Your task to perform on an android device: visit the assistant section in the google photos Image 0: 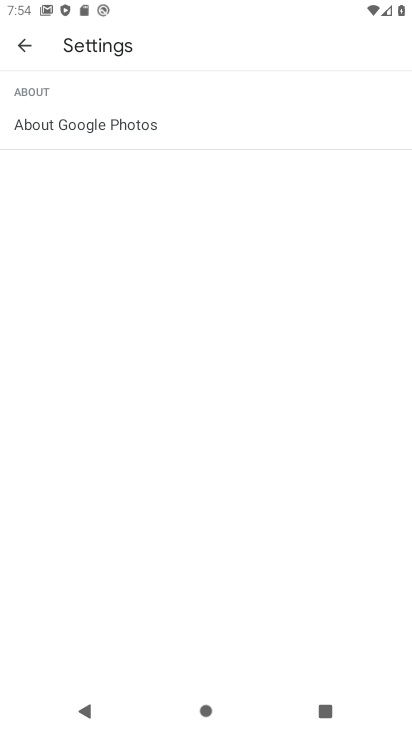
Step 0: click (34, 39)
Your task to perform on an android device: visit the assistant section in the google photos Image 1: 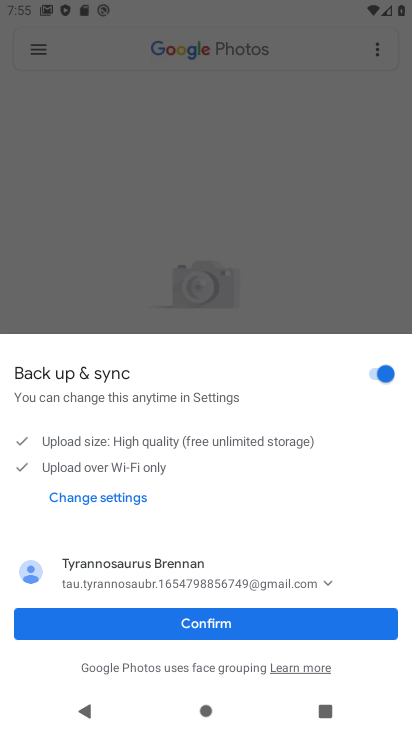
Step 1: click (244, 632)
Your task to perform on an android device: visit the assistant section in the google photos Image 2: 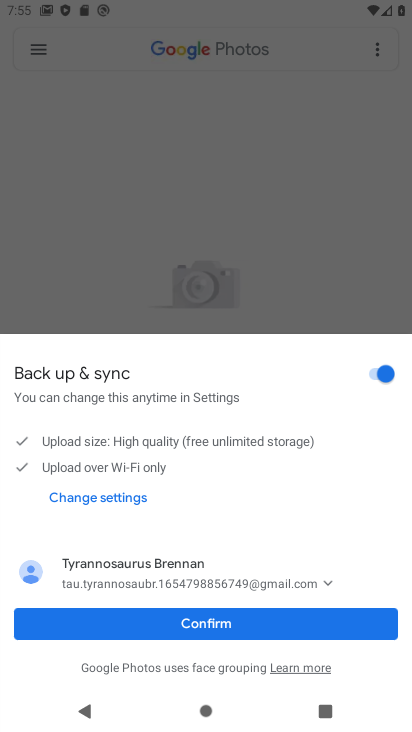
Step 2: click (243, 631)
Your task to perform on an android device: visit the assistant section in the google photos Image 3: 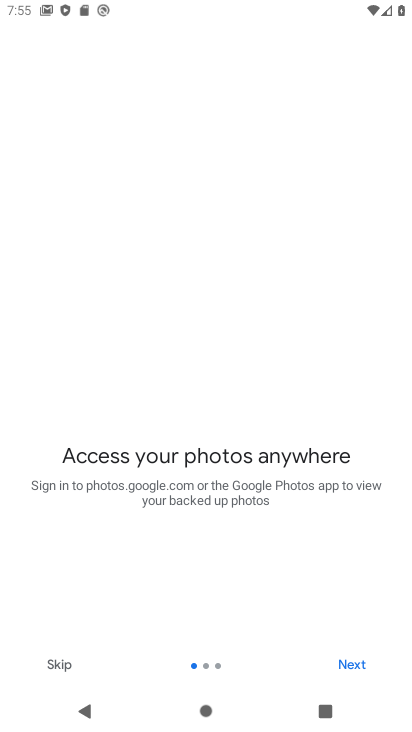
Step 3: click (342, 663)
Your task to perform on an android device: visit the assistant section in the google photos Image 4: 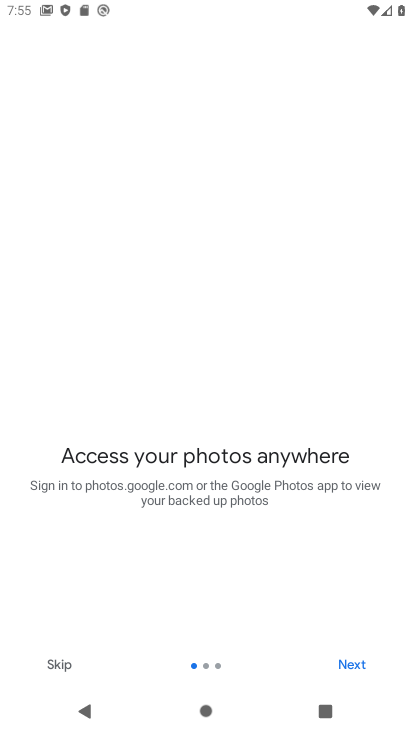
Step 4: click (342, 663)
Your task to perform on an android device: visit the assistant section in the google photos Image 5: 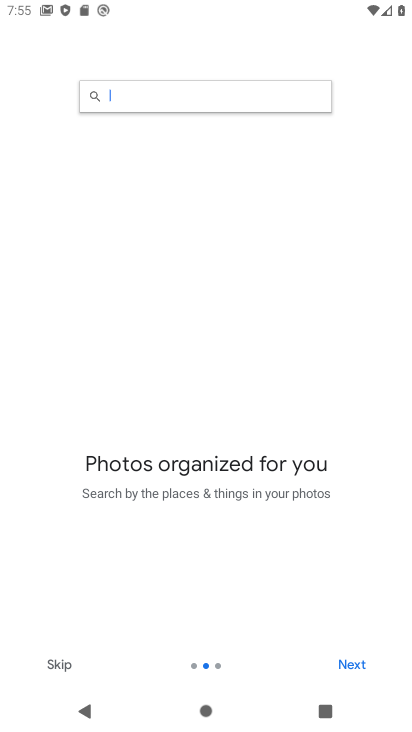
Step 5: click (342, 663)
Your task to perform on an android device: visit the assistant section in the google photos Image 6: 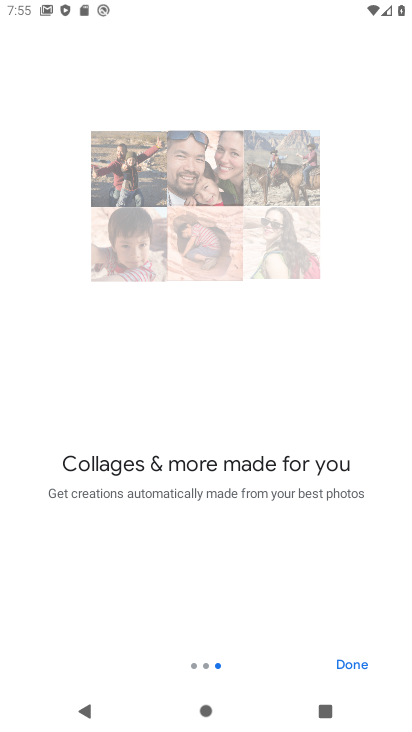
Step 6: click (342, 663)
Your task to perform on an android device: visit the assistant section in the google photos Image 7: 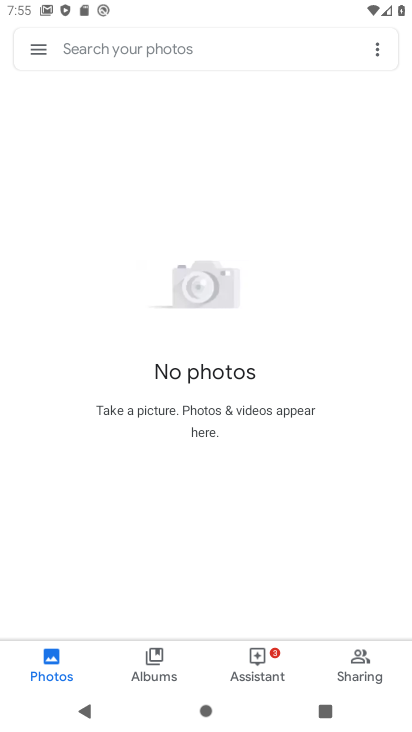
Step 7: click (255, 668)
Your task to perform on an android device: visit the assistant section in the google photos Image 8: 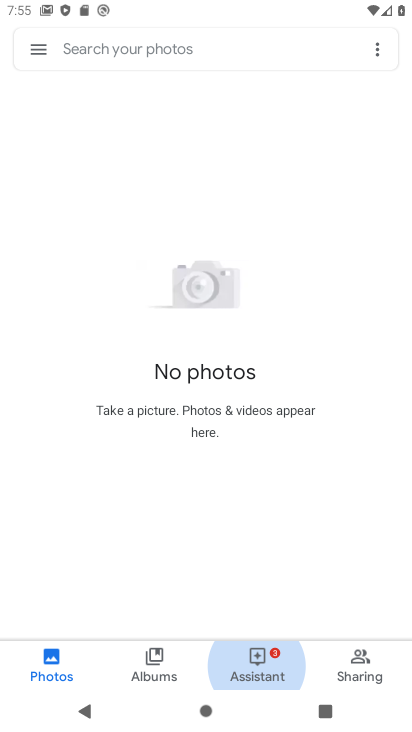
Step 8: click (256, 666)
Your task to perform on an android device: visit the assistant section in the google photos Image 9: 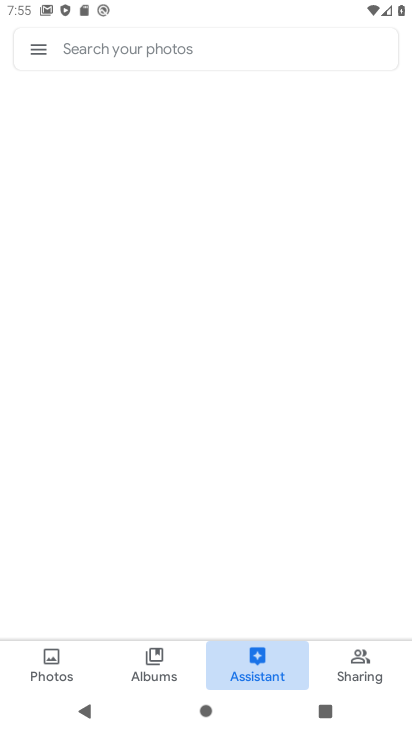
Step 9: click (255, 662)
Your task to perform on an android device: visit the assistant section in the google photos Image 10: 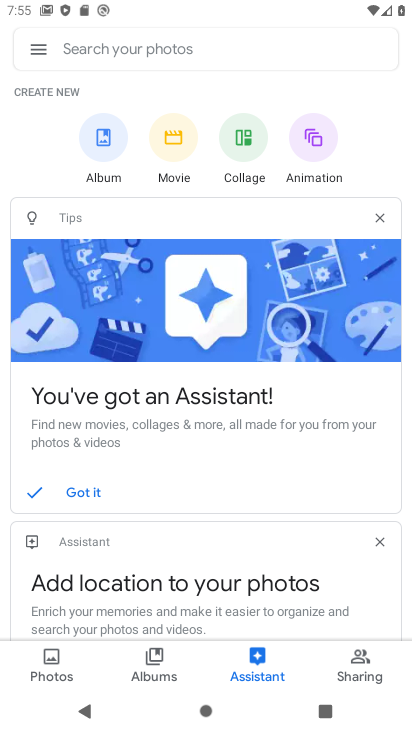
Step 10: task complete